Your task to perform on an android device: Open Wikipedia Image 0: 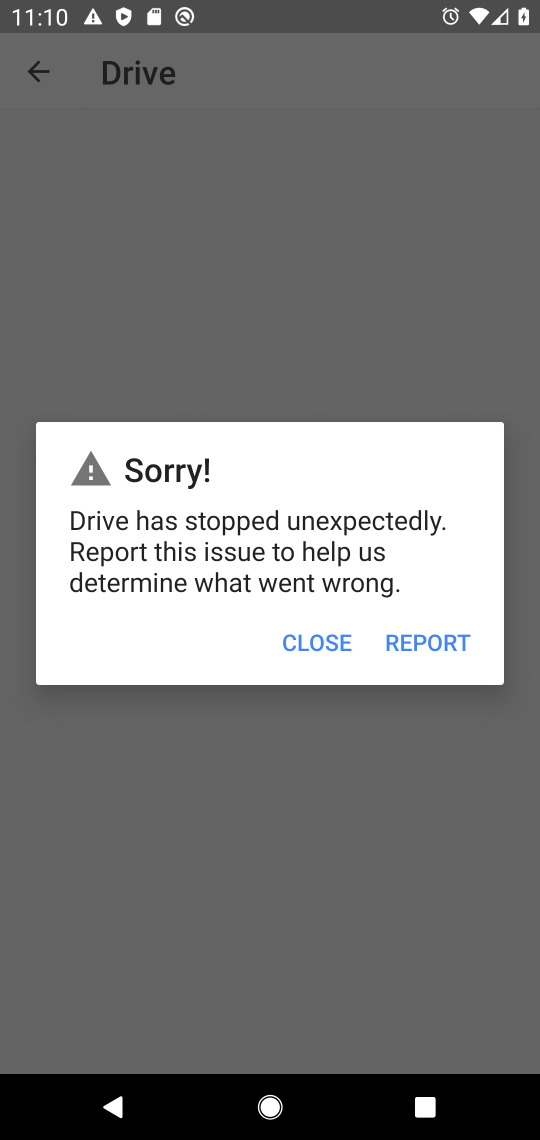
Step 0: press home button
Your task to perform on an android device: Open Wikipedia Image 1: 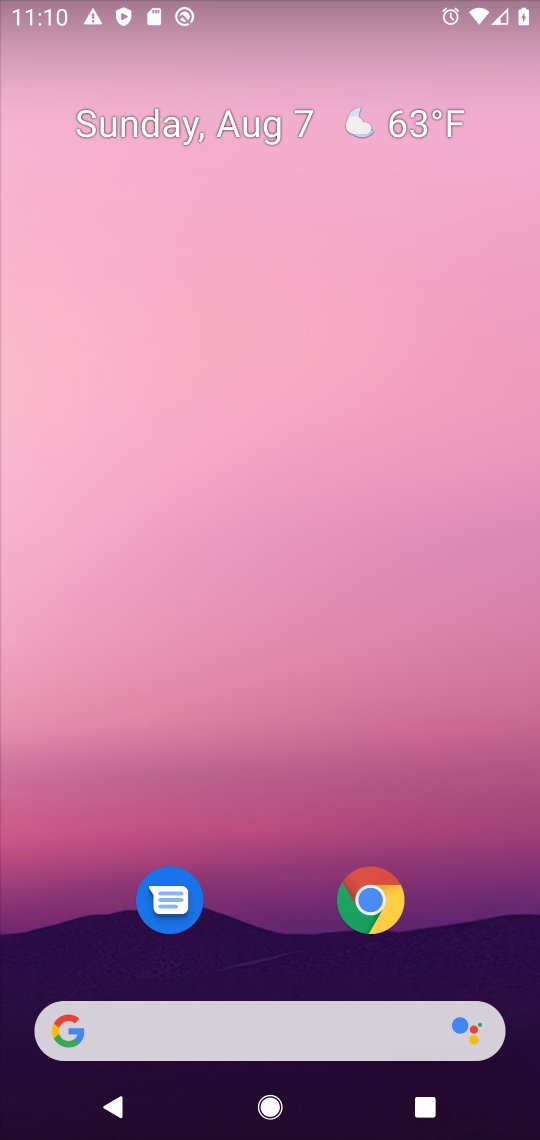
Step 1: drag from (265, 940) to (248, 82)
Your task to perform on an android device: Open Wikipedia Image 2: 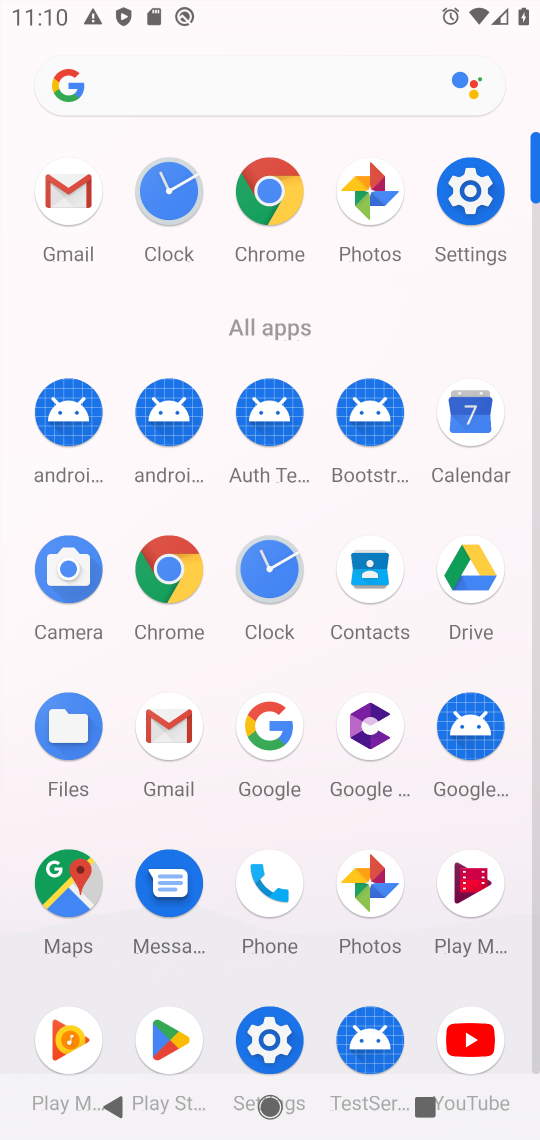
Step 2: click (264, 185)
Your task to perform on an android device: Open Wikipedia Image 3: 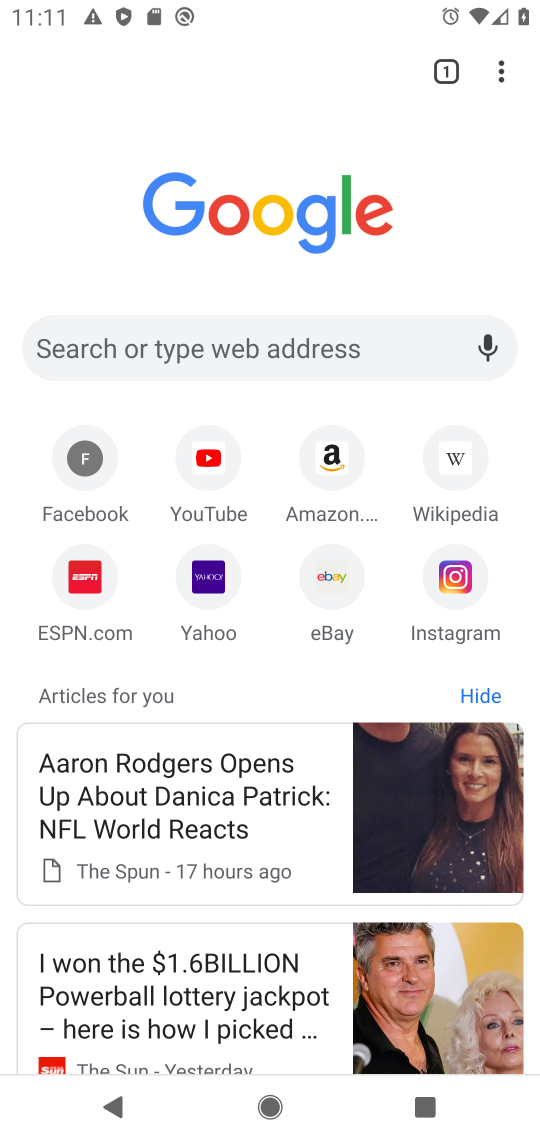
Step 3: click (457, 449)
Your task to perform on an android device: Open Wikipedia Image 4: 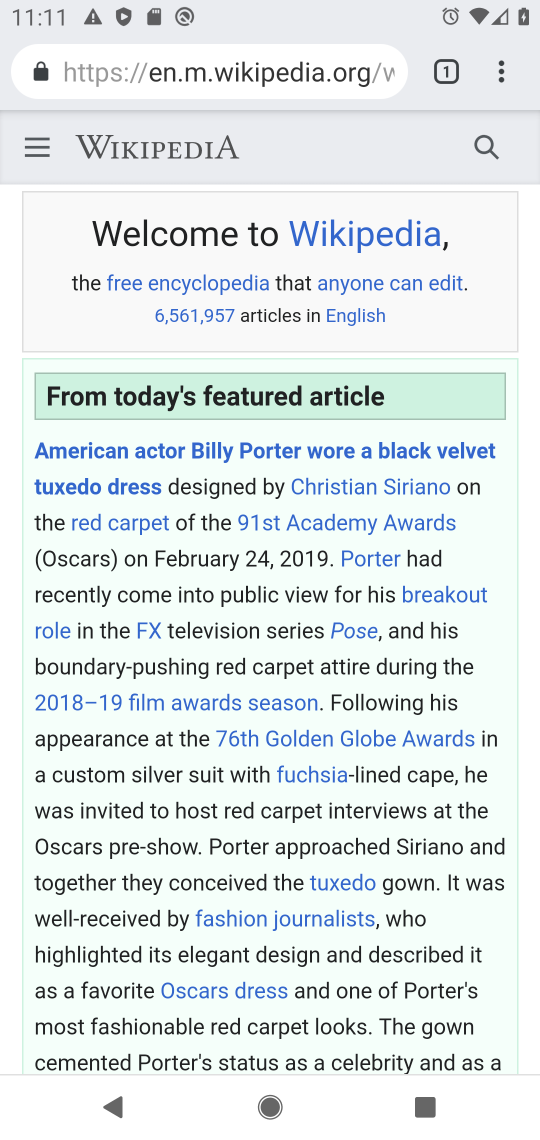
Step 4: task complete